Your task to perform on an android device: Open eBay Image 0: 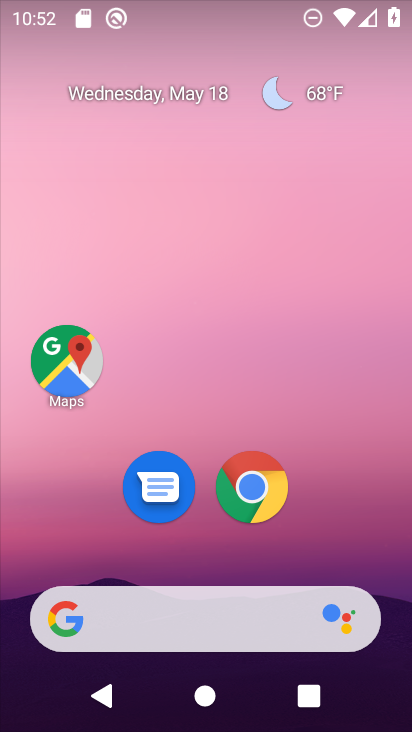
Step 0: drag from (324, 566) to (307, 312)
Your task to perform on an android device: Open eBay Image 1: 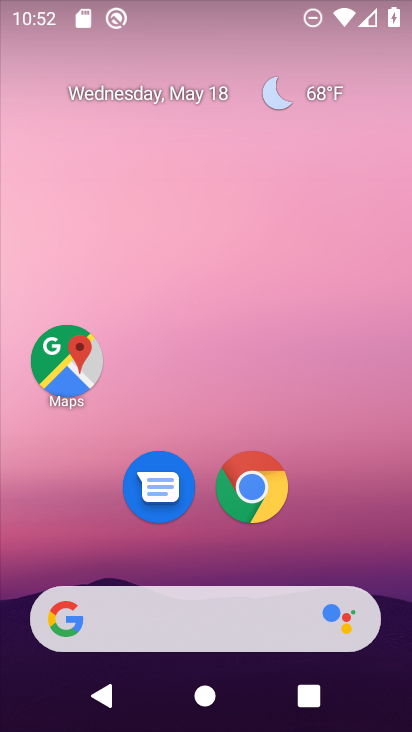
Step 1: drag from (354, 518) to (340, 171)
Your task to perform on an android device: Open eBay Image 2: 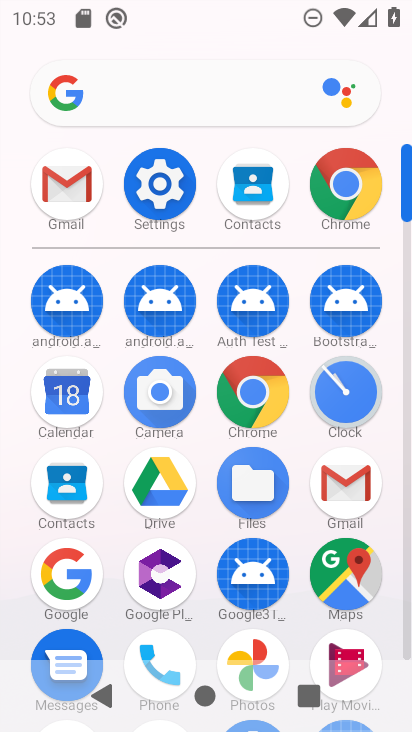
Step 2: click (342, 197)
Your task to perform on an android device: Open eBay Image 3: 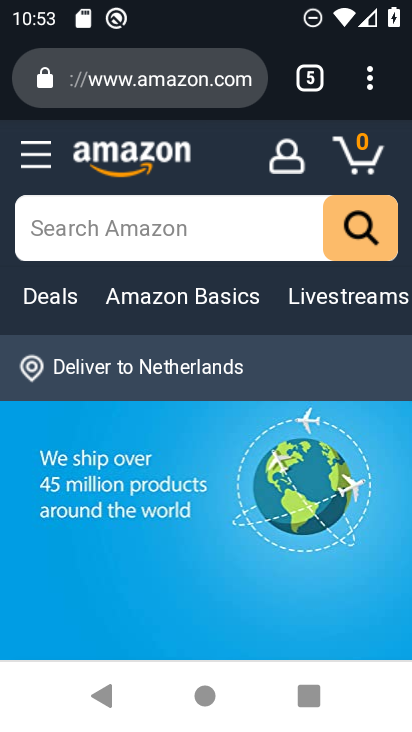
Step 3: click (124, 78)
Your task to perform on an android device: Open eBay Image 4: 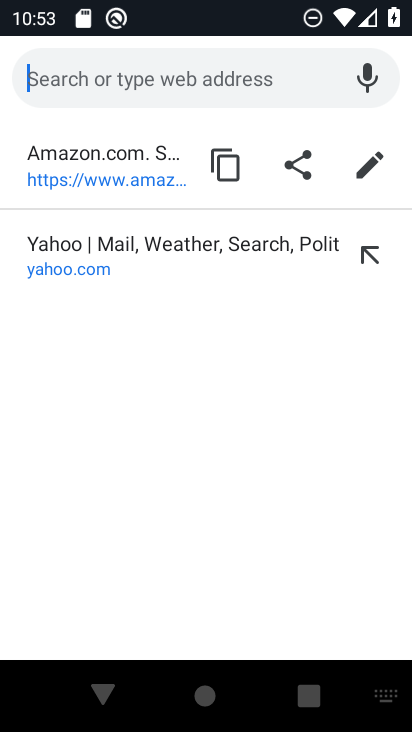
Step 4: click (197, 75)
Your task to perform on an android device: Open eBay Image 5: 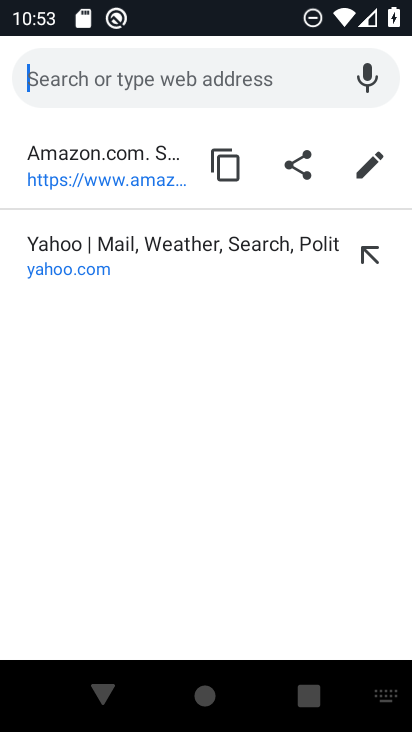
Step 5: type "ebay"
Your task to perform on an android device: Open eBay Image 6: 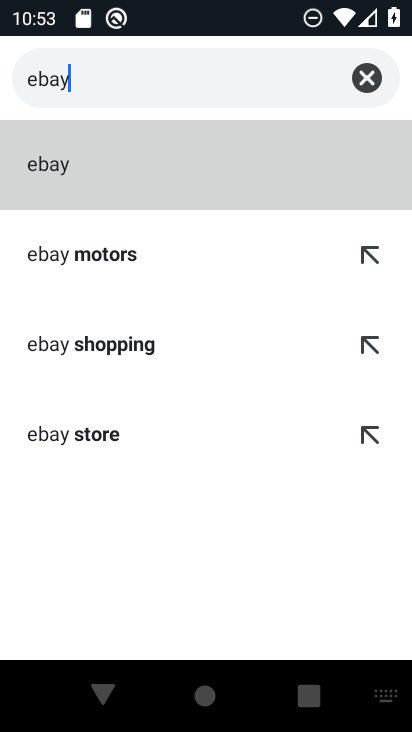
Step 6: click (176, 181)
Your task to perform on an android device: Open eBay Image 7: 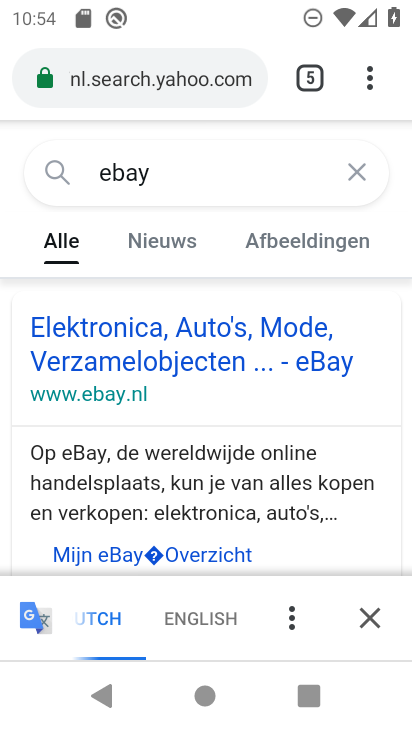
Step 7: drag from (195, 527) to (195, 284)
Your task to perform on an android device: Open eBay Image 8: 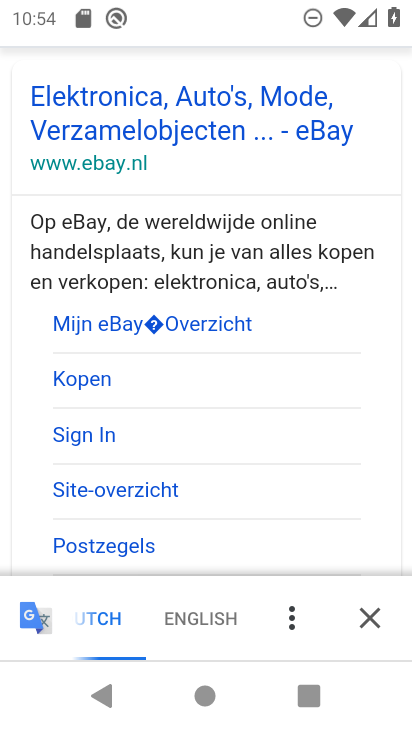
Step 8: drag from (166, 476) to (215, 209)
Your task to perform on an android device: Open eBay Image 9: 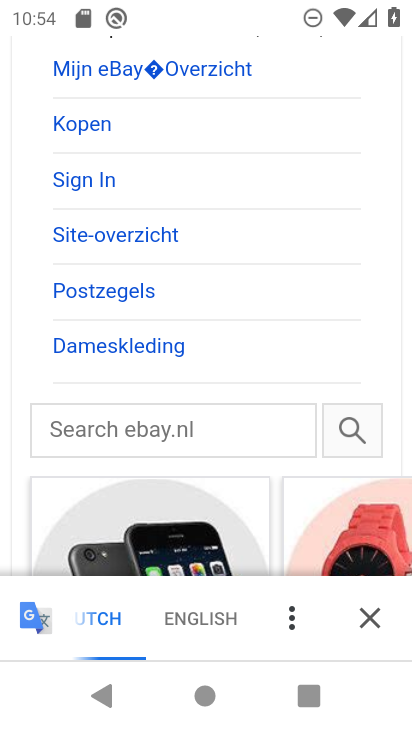
Step 9: drag from (216, 173) to (173, 464)
Your task to perform on an android device: Open eBay Image 10: 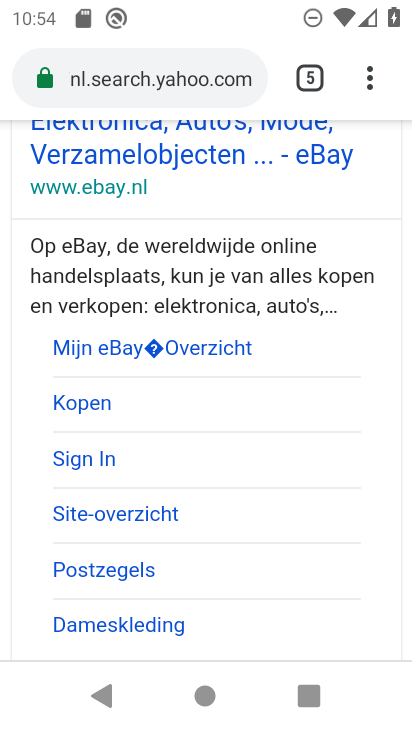
Step 10: click (116, 169)
Your task to perform on an android device: Open eBay Image 11: 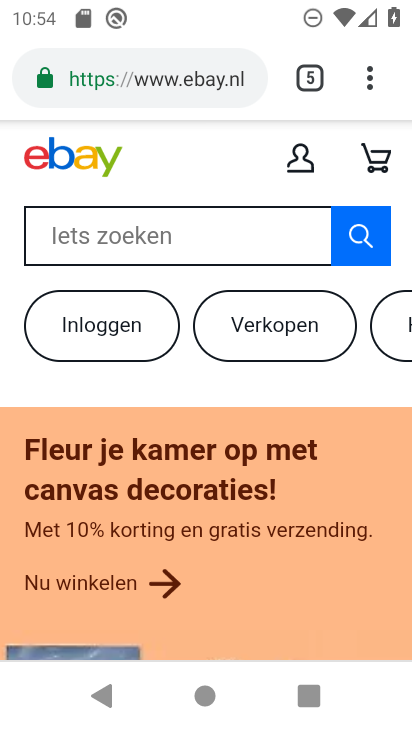
Step 11: task complete